Your task to perform on an android device: Search for Mexican restaurants on Maps Image 0: 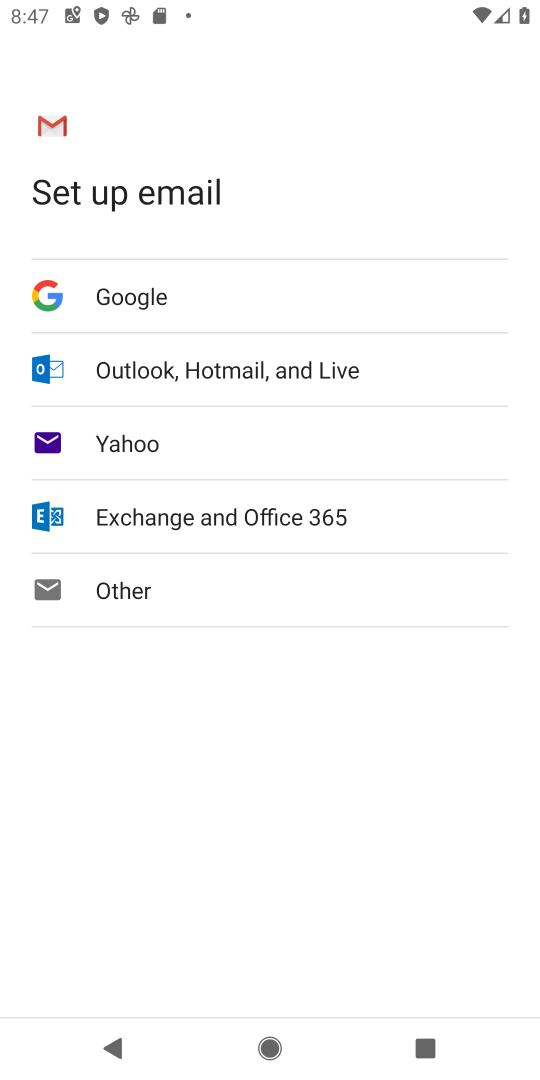
Step 0: press home button
Your task to perform on an android device: Search for Mexican restaurants on Maps Image 1: 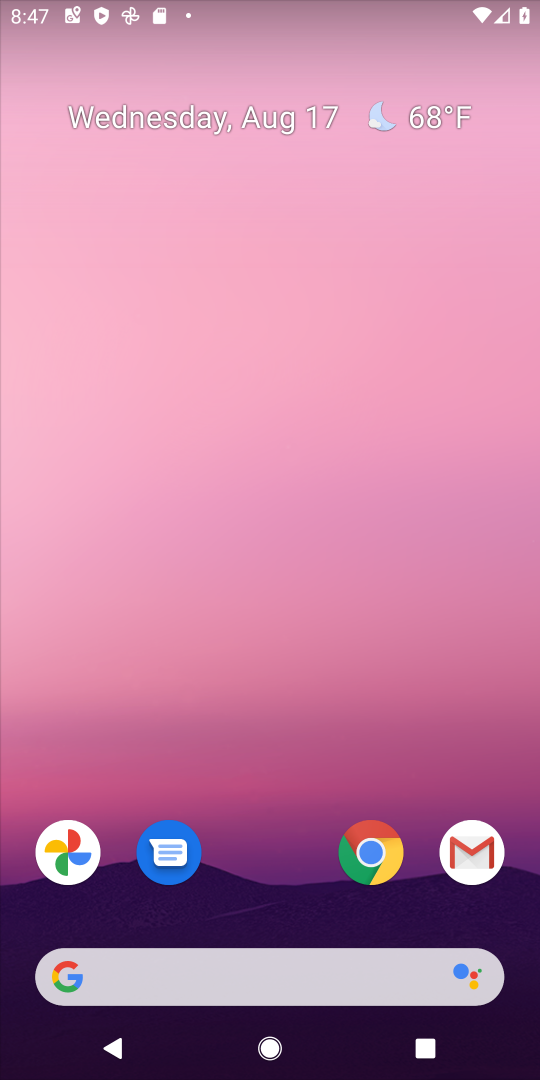
Step 1: drag from (281, 888) to (287, 177)
Your task to perform on an android device: Search for Mexican restaurants on Maps Image 2: 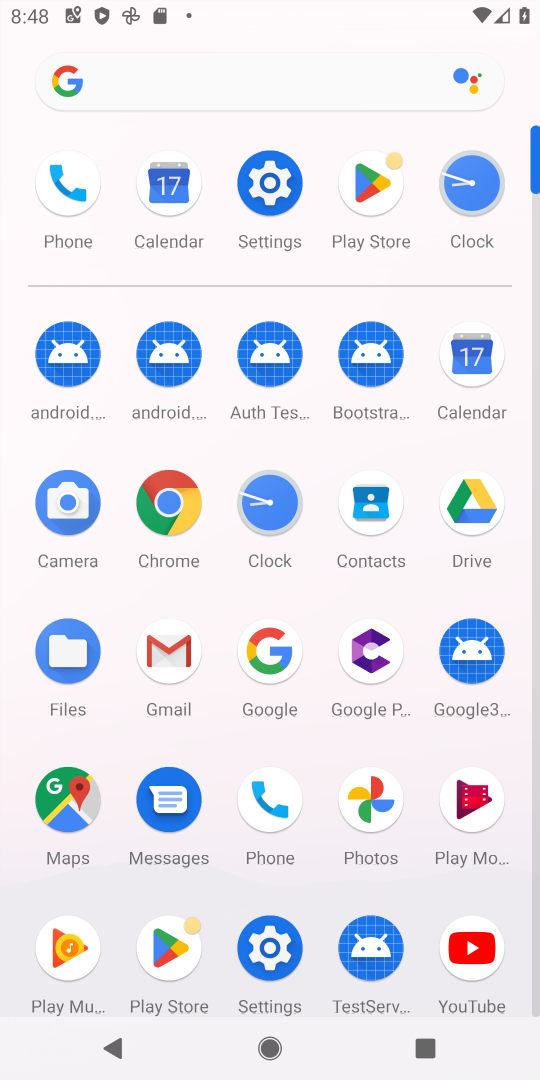
Step 2: click (67, 797)
Your task to perform on an android device: Search for Mexican restaurants on Maps Image 3: 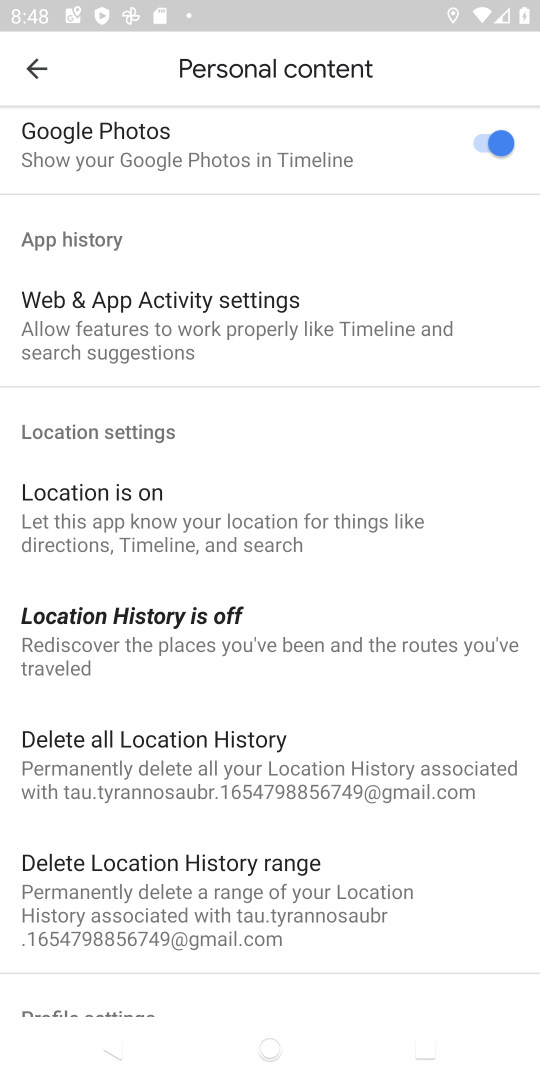
Step 3: click (29, 74)
Your task to perform on an android device: Search for Mexican restaurants on Maps Image 4: 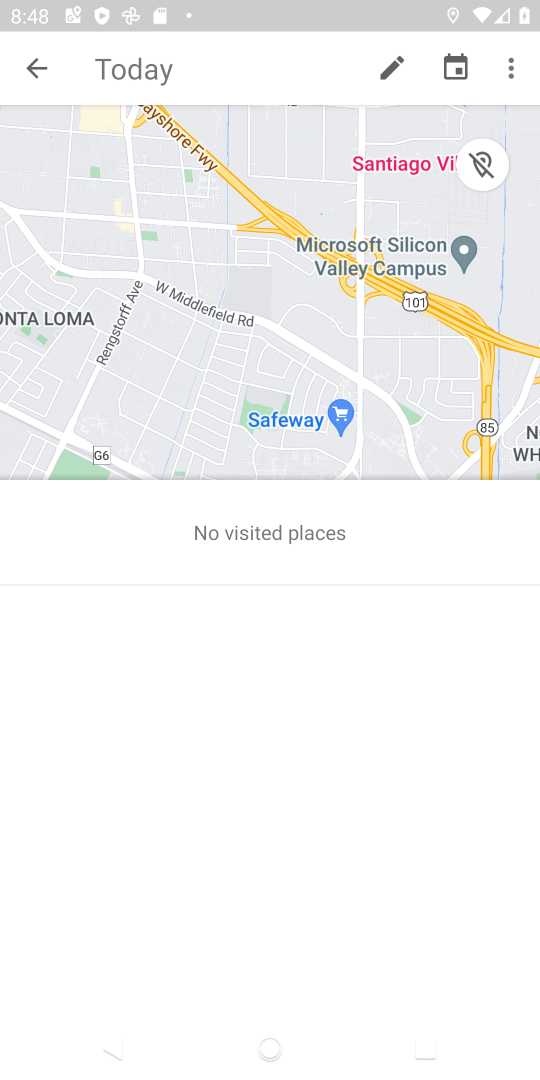
Step 4: click (28, 65)
Your task to perform on an android device: Search for Mexican restaurants on Maps Image 5: 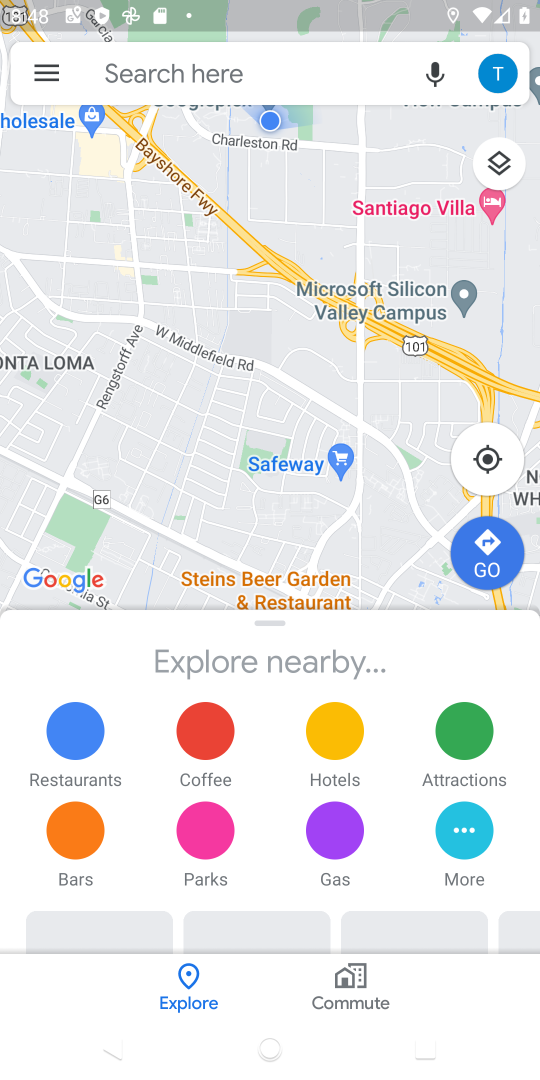
Step 5: click (136, 65)
Your task to perform on an android device: Search for Mexican restaurants on Maps Image 6: 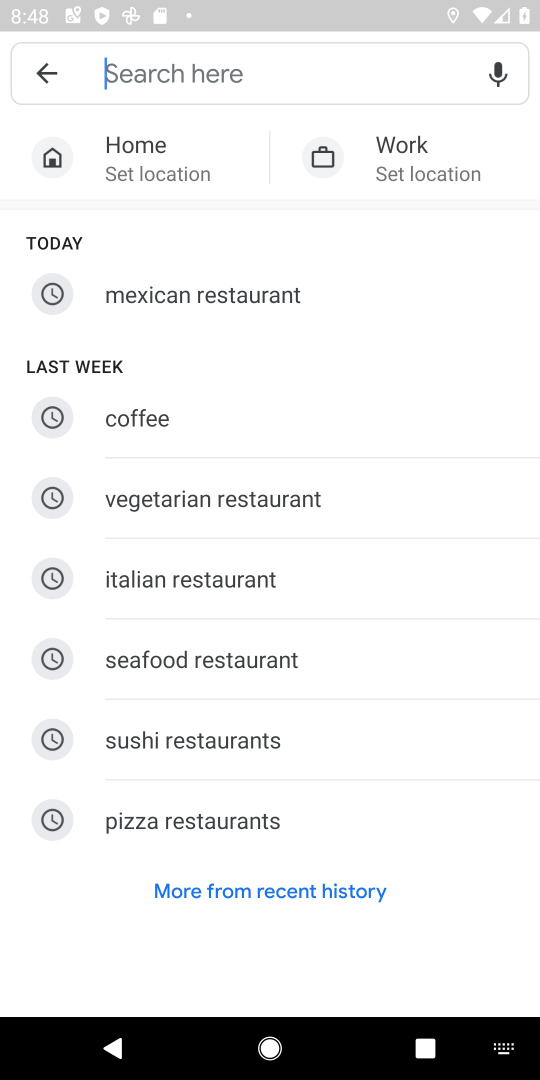
Step 6: click (220, 293)
Your task to perform on an android device: Search for Mexican restaurants on Maps Image 7: 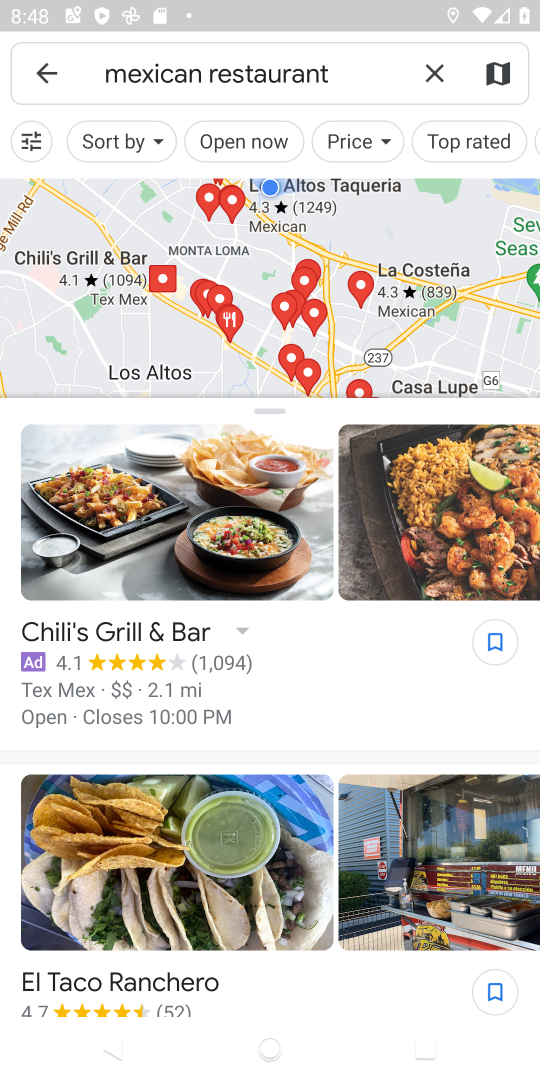
Step 7: task complete